Your task to perform on an android device: turn off airplane mode Image 0: 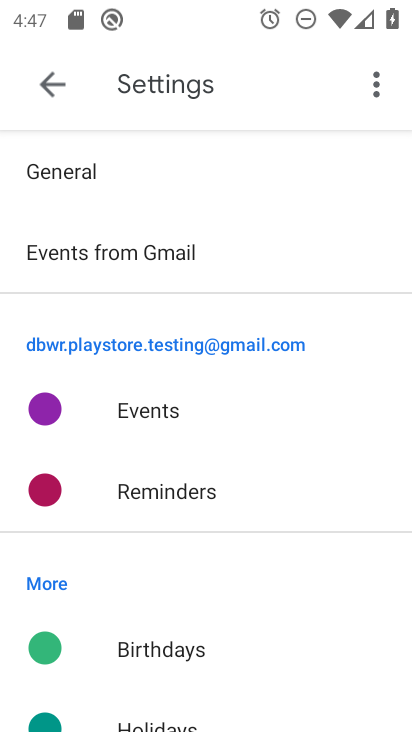
Step 0: drag from (304, 99) to (211, 549)
Your task to perform on an android device: turn off airplane mode Image 1: 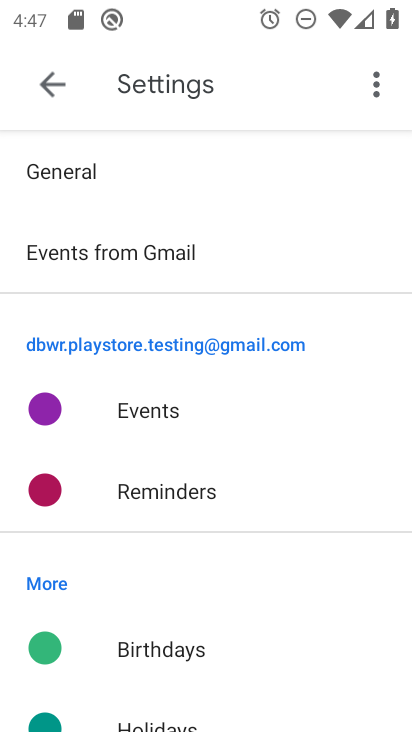
Step 1: drag from (310, 11) to (217, 584)
Your task to perform on an android device: turn off airplane mode Image 2: 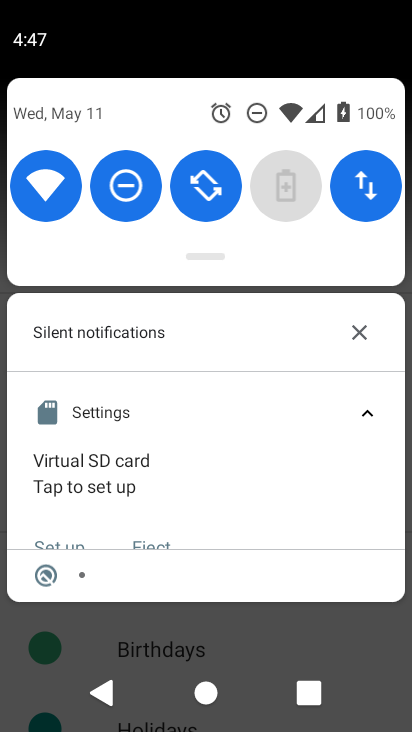
Step 2: click (364, 187)
Your task to perform on an android device: turn off airplane mode Image 3: 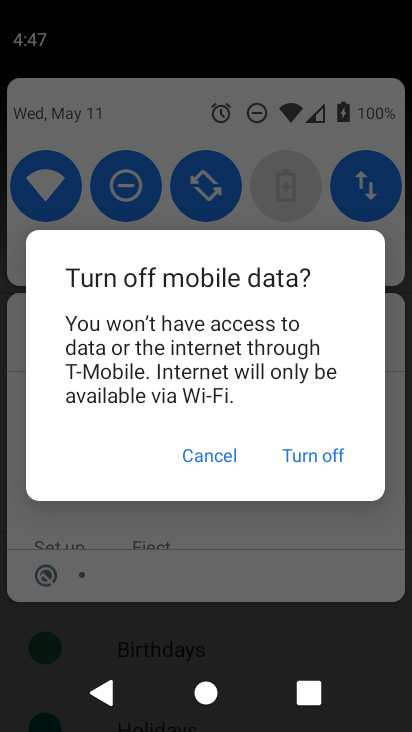
Step 3: click (306, 457)
Your task to perform on an android device: turn off airplane mode Image 4: 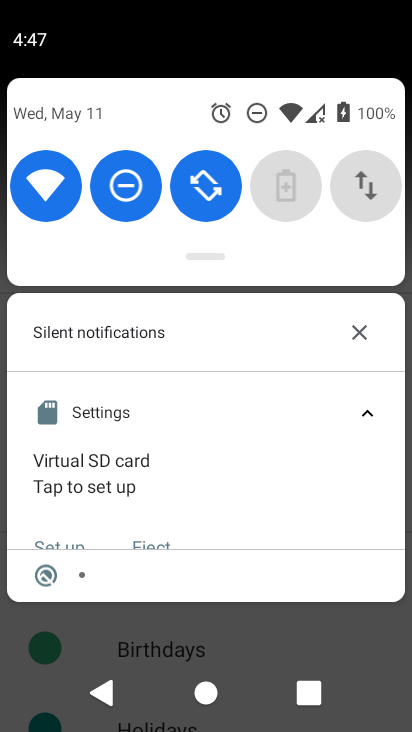
Step 4: task complete